Your task to perform on an android device: set the stopwatch Image 0: 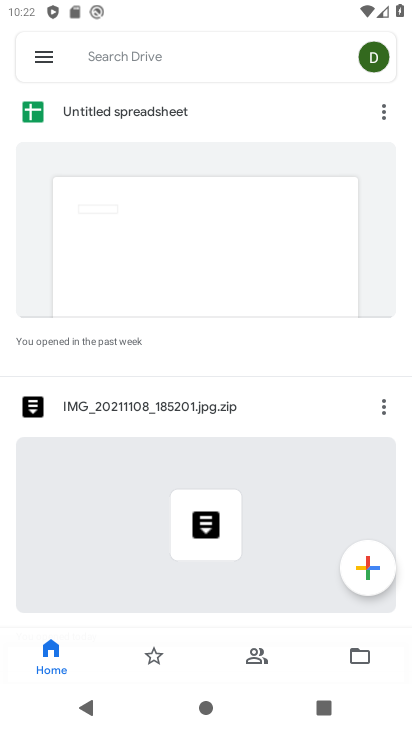
Step 0: press home button
Your task to perform on an android device: set the stopwatch Image 1: 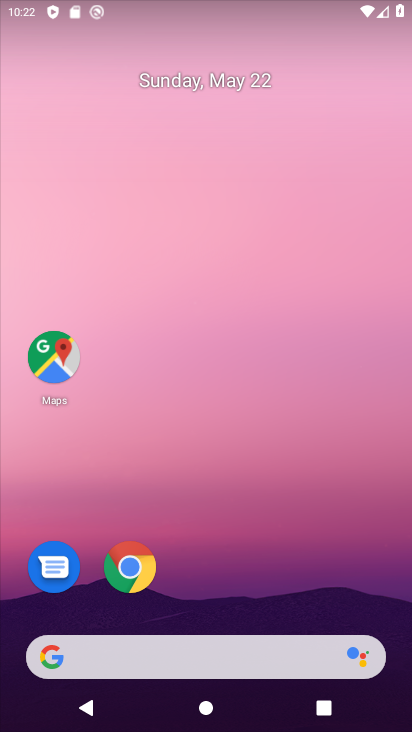
Step 1: drag from (383, 613) to (348, 54)
Your task to perform on an android device: set the stopwatch Image 2: 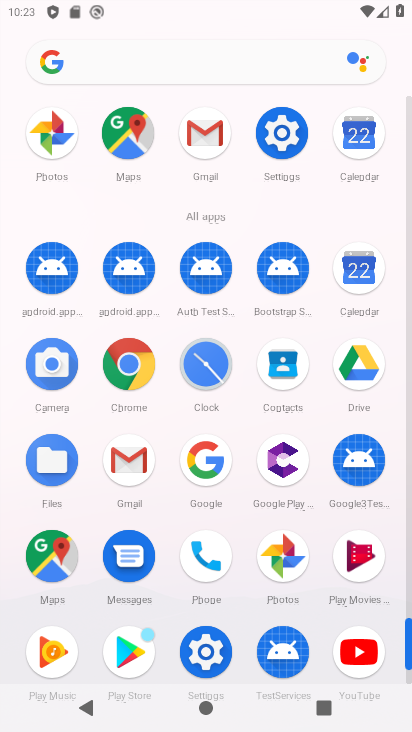
Step 2: click (200, 360)
Your task to perform on an android device: set the stopwatch Image 3: 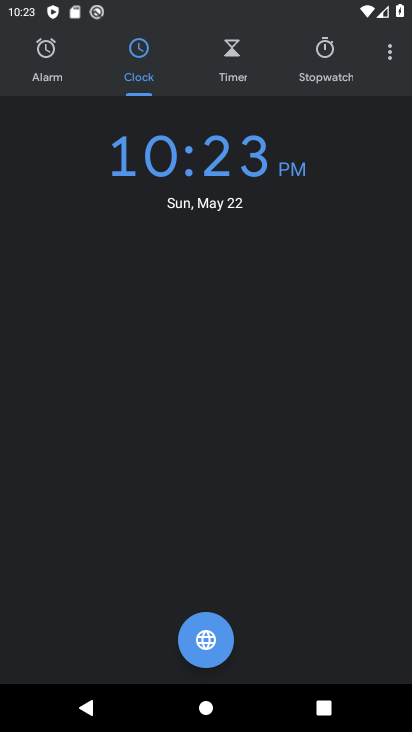
Step 3: click (324, 48)
Your task to perform on an android device: set the stopwatch Image 4: 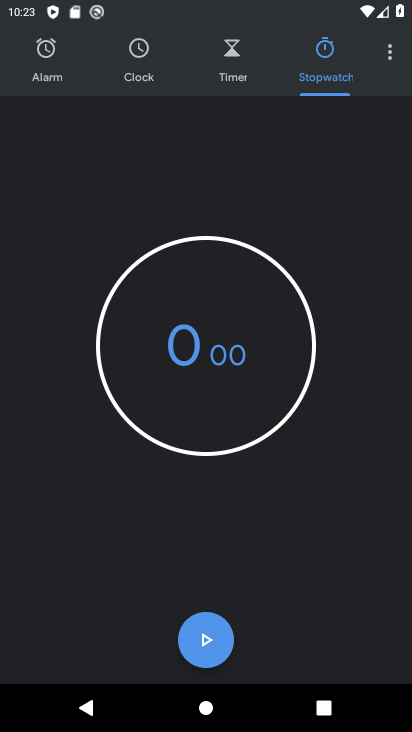
Step 4: task complete